Your task to perform on an android device: turn off priority inbox in the gmail app Image 0: 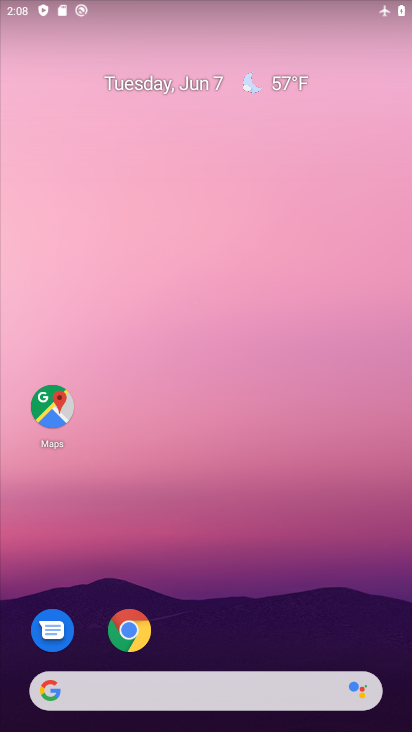
Step 0: drag from (390, 706) to (337, 86)
Your task to perform on an android device: turn off priority inbox in the gmail app Image 1: 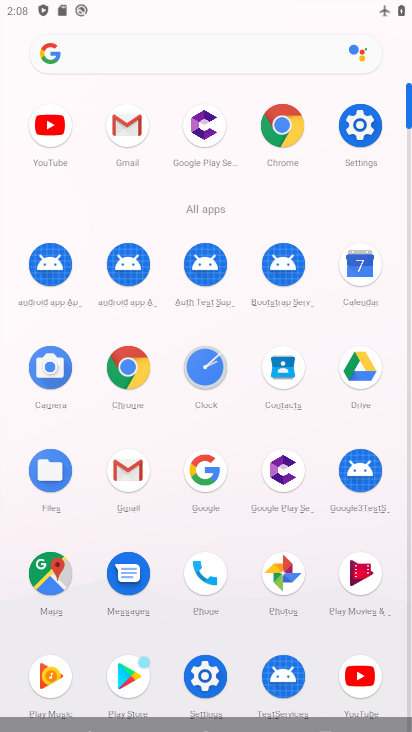
Step 1: click (114, 464)
Your task to perform on an android device: turn off priority inbox in the gmail app Image 2: 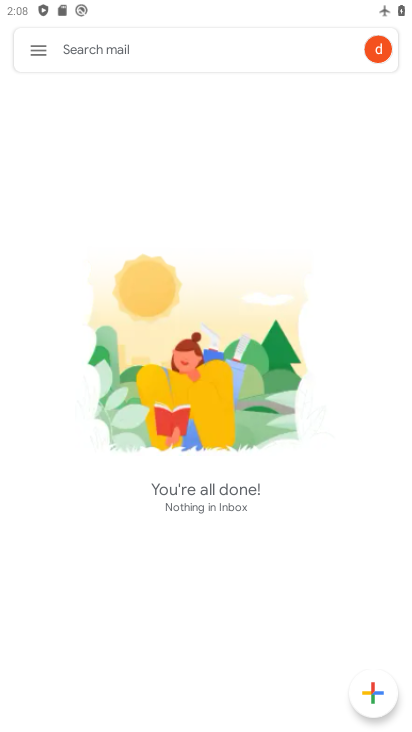
Step 2: click (40, 46)
Your task to perform on an android device: turn off priority inbox in the gmail app Image 3: 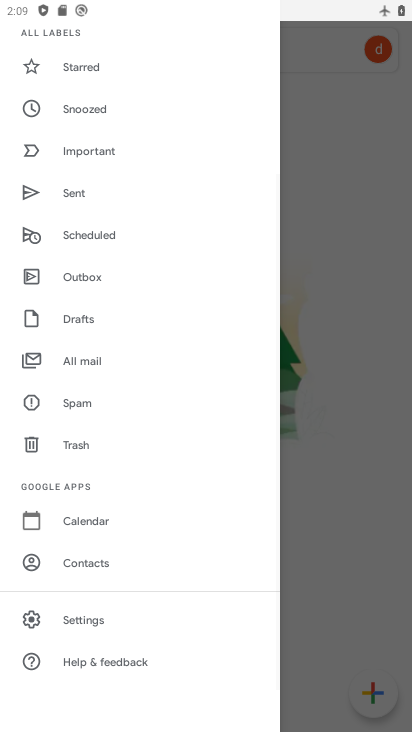
Step 3: click (85, 611)
Your task to perform on an android device: turn off priority inbox in the gmail app Image 4: 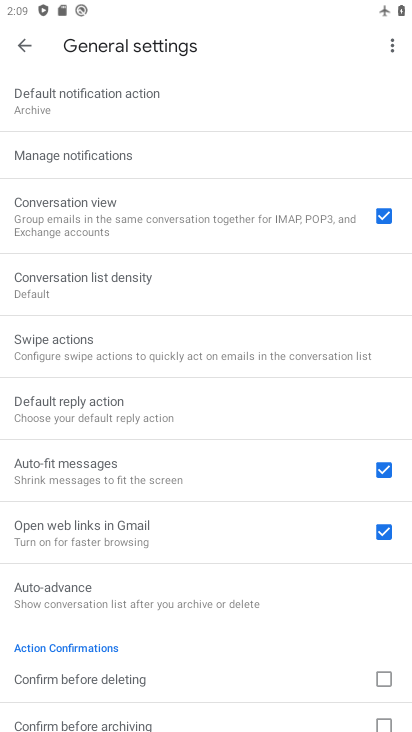
Step 4: click (7, 45)
Your task to perform on an android device: turn off priority inbox in the gmail app Image 5: 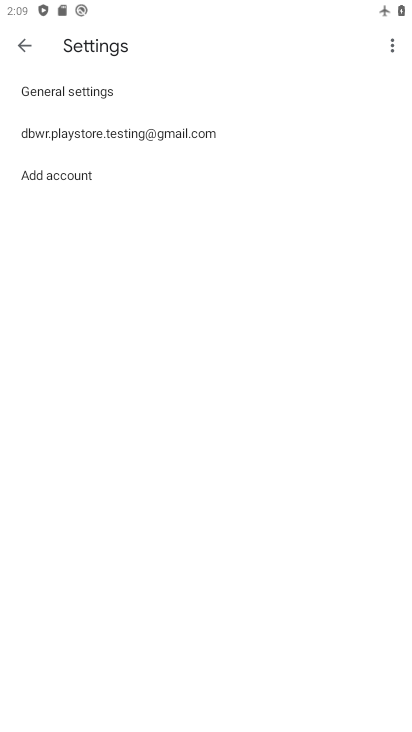
Step 5: click (69, 135)
Your task to perform on an android device: turn off priority inbox in the gmail app Image 6: 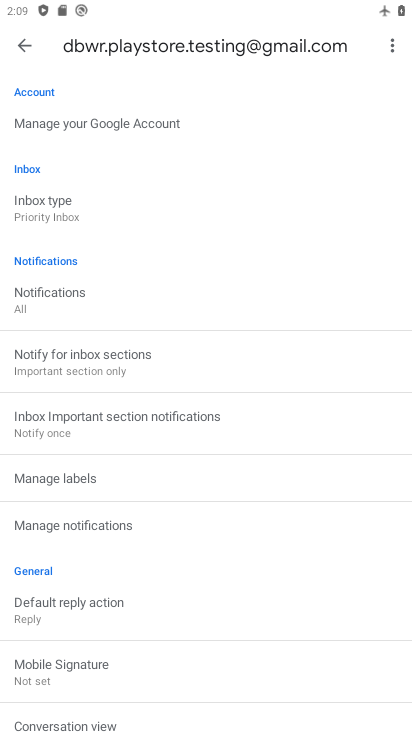
Step 6: click (48, 203)
Your task to perform on an android device: turn off priority inbox in the gmail app Image 7: 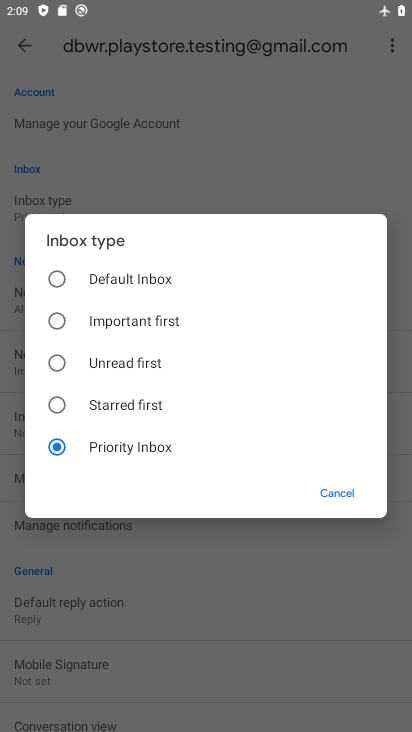
Step 7: click (56, 276)
Your task to perform on an android device: turn off priority inbox in the gmail app Image 8: 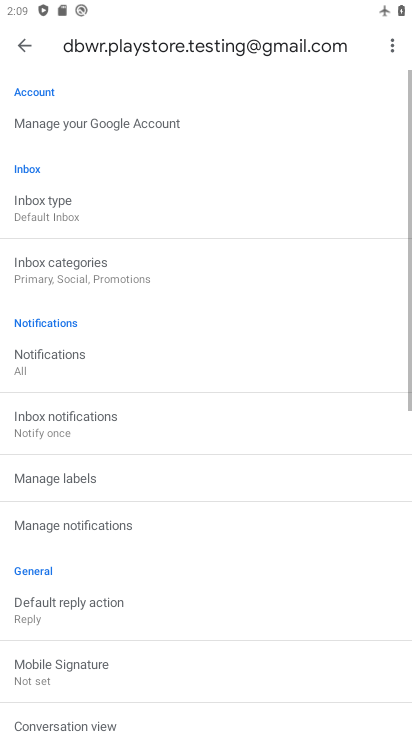
Step 8: task complete